Your task to perform on an android device: turn on javascript in the chrome app Image 0: 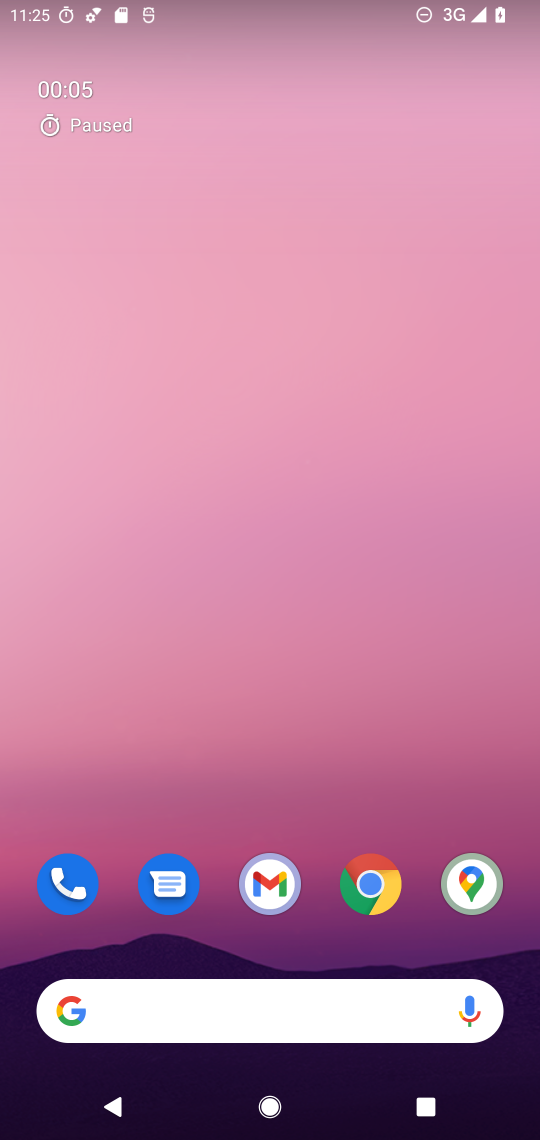
Step 0: click (371, 884)
Your task to perform on an android device: turn on javascript in the chrome app Image 1: 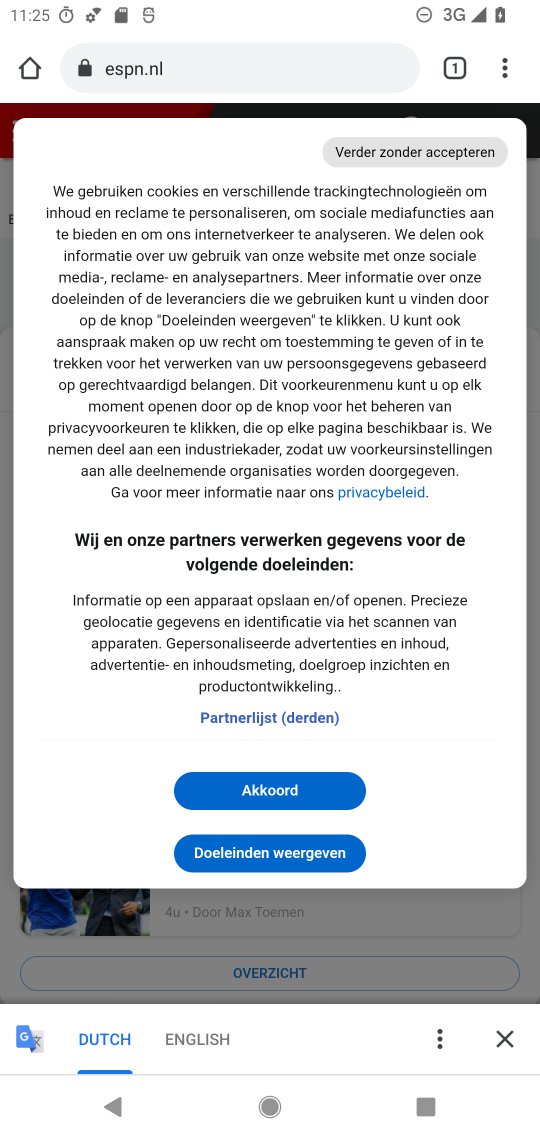
Step 1: click (507, 71)
Your task to perform on an android device: turn on javascript in the chrome app Image 2: 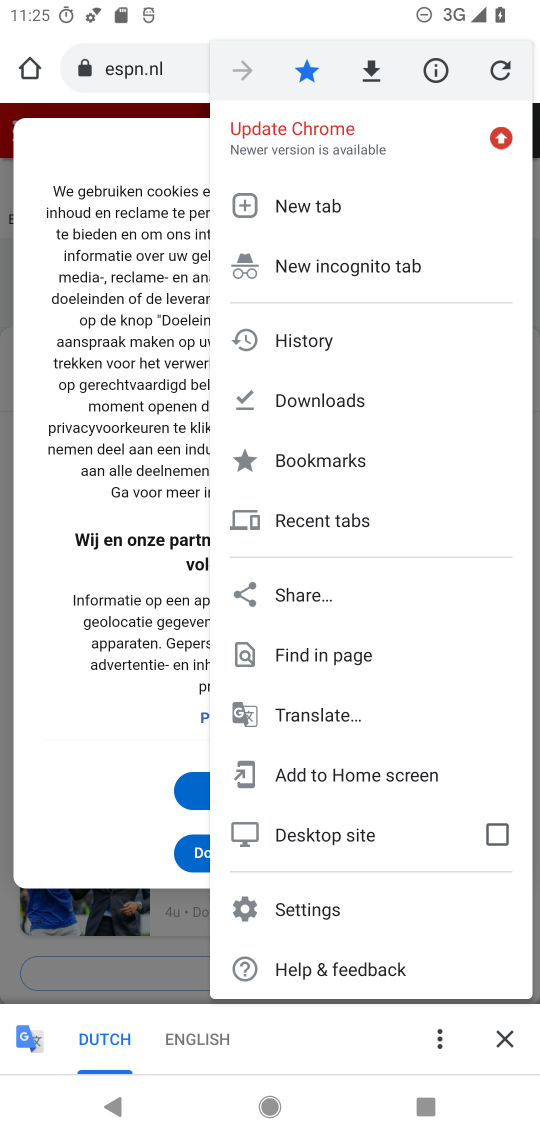
Step 2: click (291, 915)
Your task to perform on an android device: turn on javascript in the chrome app Image 3: 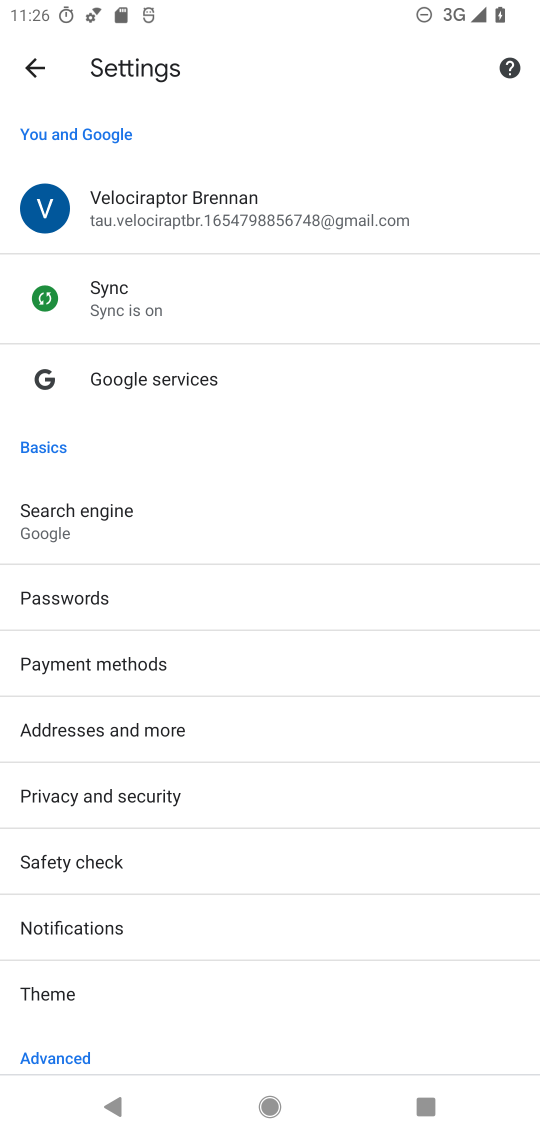
Step 3: drag from (114, 965) to (114, 385)
Your task to perform on an android device: turn on javascript in the chrome app Image 4: 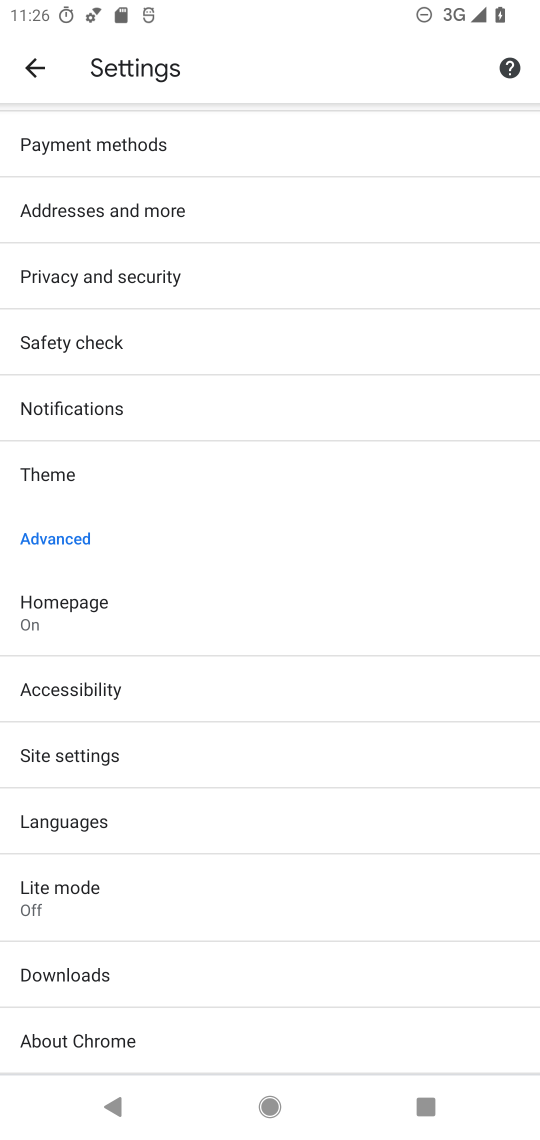
Step 4: click (80, 758)
Your task to perform on an android device: turn on javascript in the chrome app Image 5: 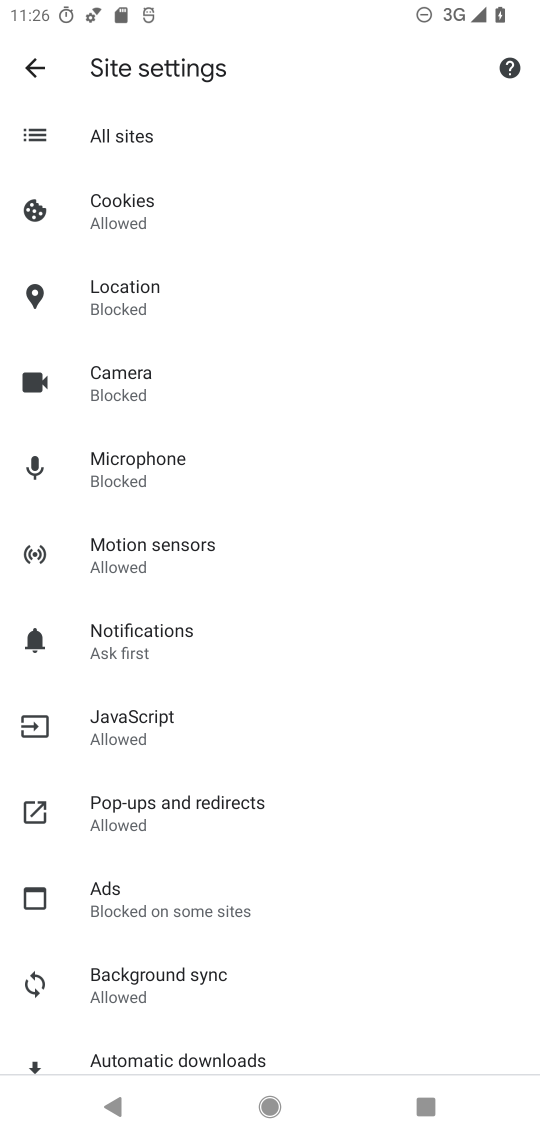
Step 5: click (120, 733)
Your task to perform on an android device: turn on javascript in the chrome app Image 6: 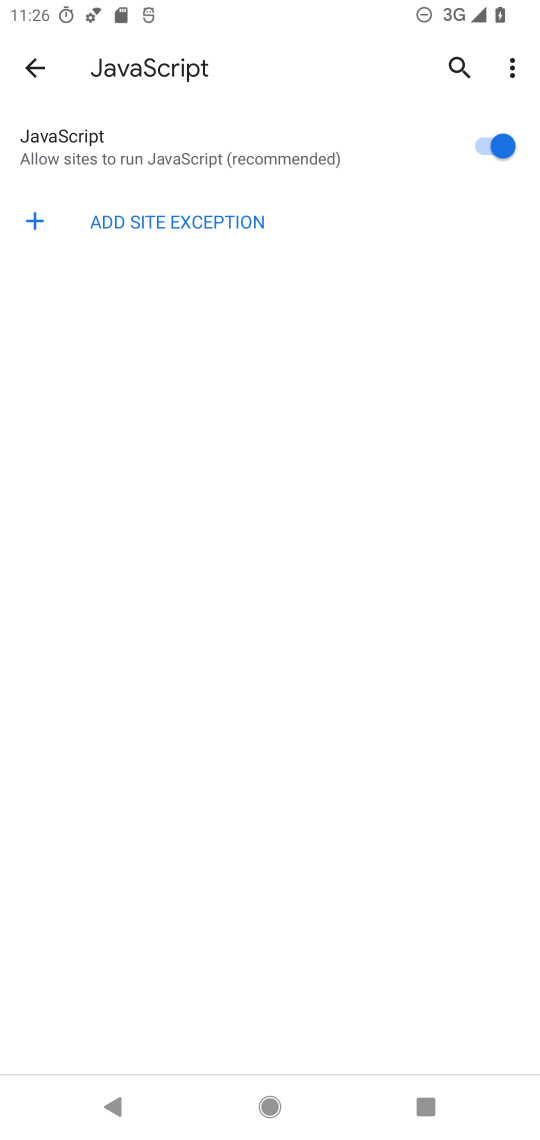
Step 6: task complete